Your task to perform on an android device: allow cookies in the chrome app Image 0: 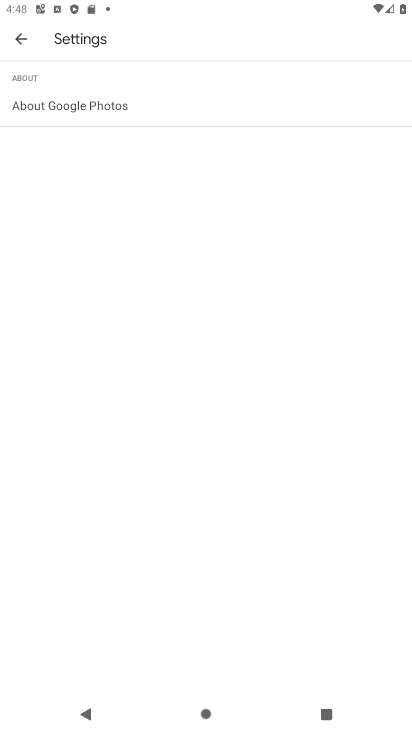
Step 0: press home button
Your task to perform on an android device: allow cookies in the chrome app Image 1: 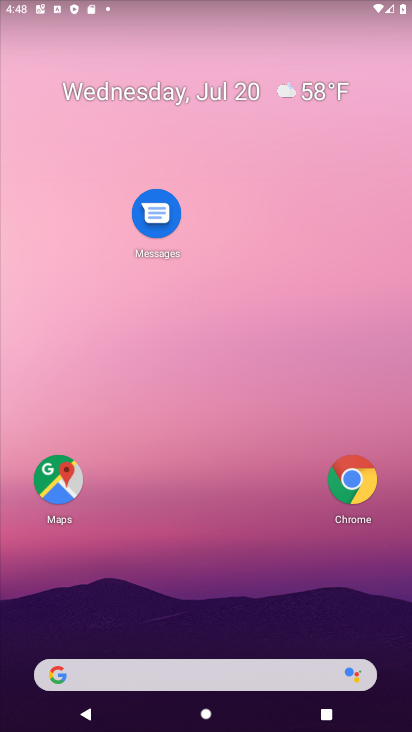
Step 1: click (351, 494)
Your task to perform on an android device: allow cookies in the chrome app Image 2: 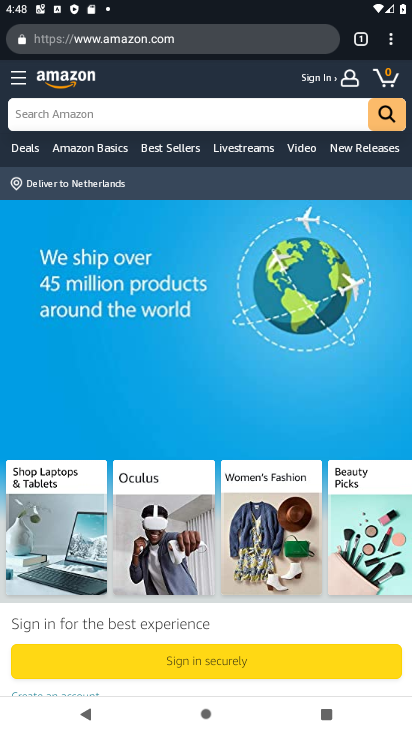
Step 2: click (389, 37)
Your task to perform on an android device: allow cookies in the chrome app Image 3: 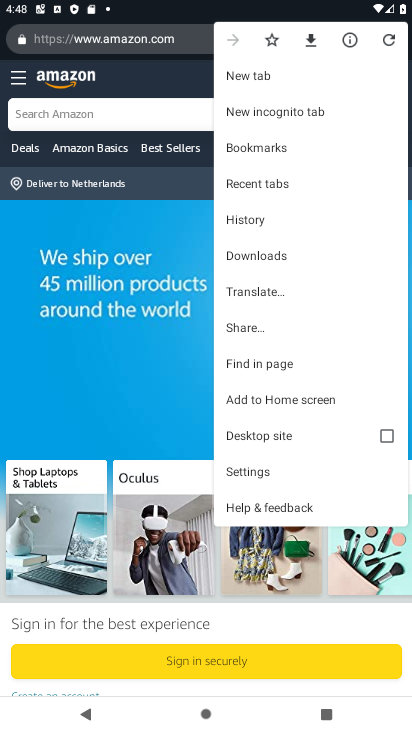
Step 3: click (256, 469)
Your task to perform on an android device: allow cookies in the chrome app Image 4: 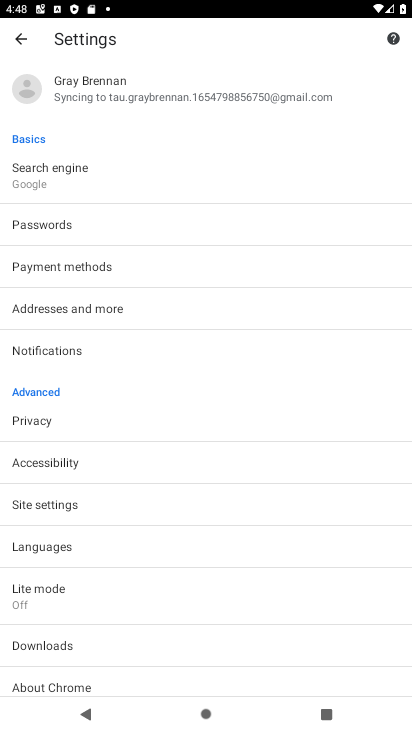
Step 4: click (53, 506)
Your task to perform on an android device: allow cookies in the chrome app Image 5: 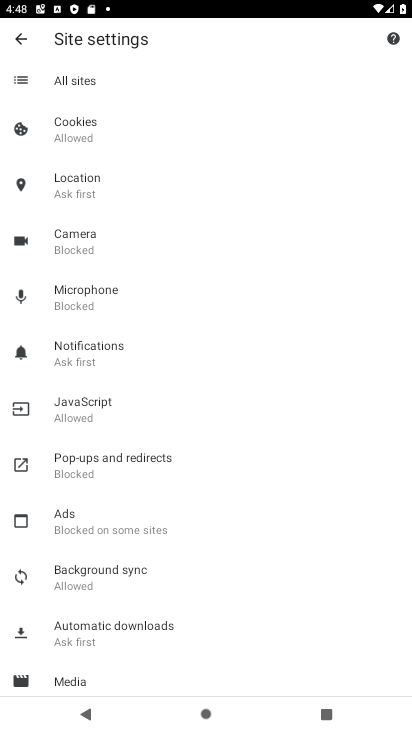
Step 5: click (73, 139)
Your task to perform on an android device: allow cookies in the chrome app Image 6: 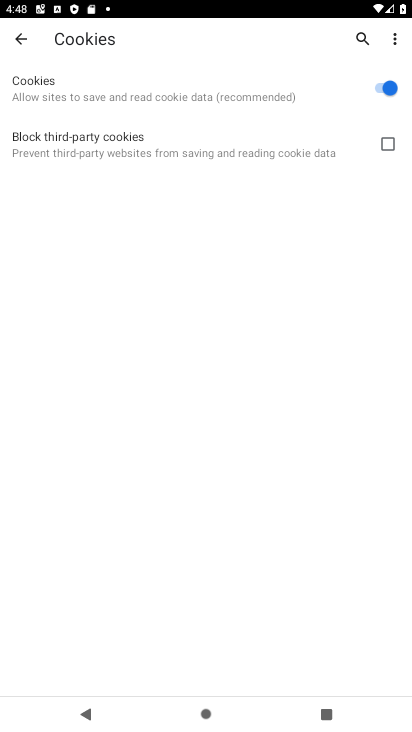
Step 6: task complete